Your task to perform on an android device: Go to sound settings Image 0: 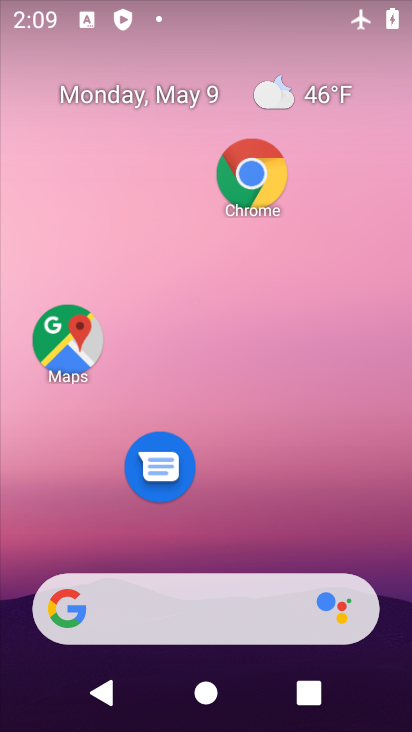
Step 0: drag from (207, 452) to (182, 2)
Your task to perform on an android device: Go to sound settings Image 1: 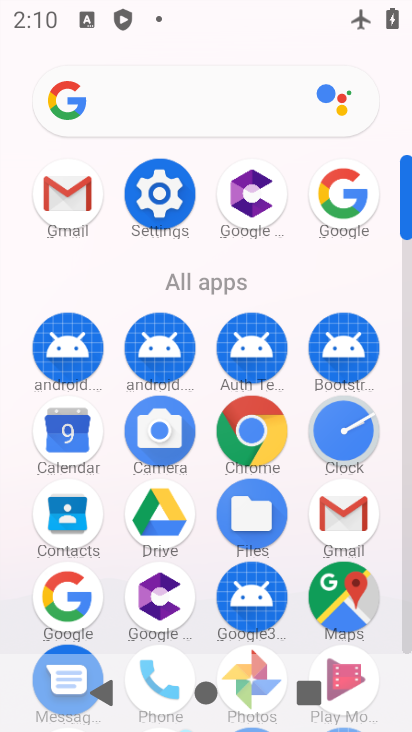
Step 1: click (177, 198)
Your task to perform on an android device: Go to sound settings Image 2: 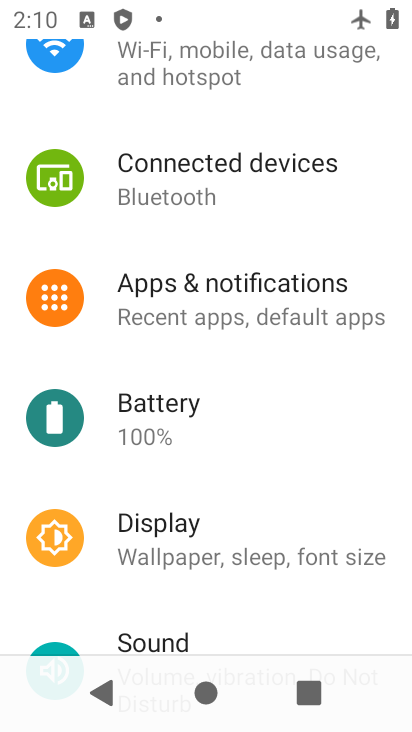
Step 2: drag from (176, 557) to (199, 333)
Your task to perform on an android device: Go to sound settings Image 3: 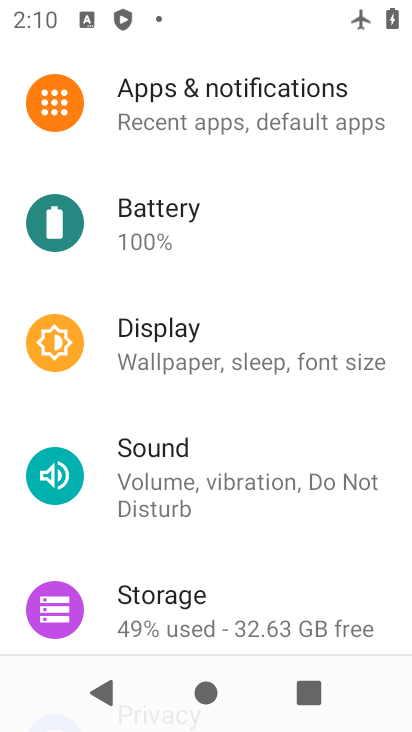
Step 3: click (207, 465)
Your task to perform on an android device: Go to sound settings Image 4: 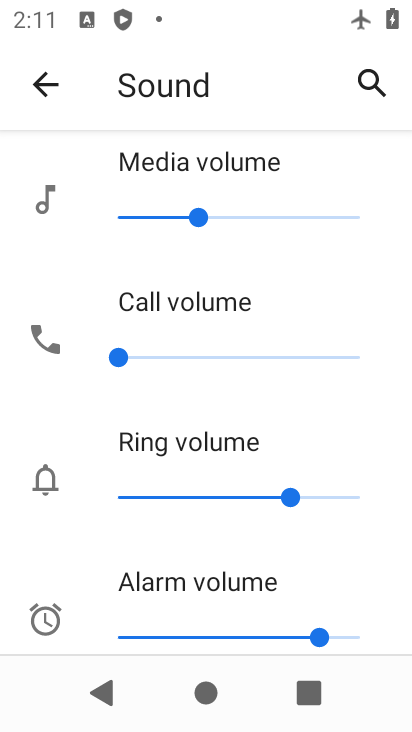
Step 4: task complete